Your task to perform on an android device: change alarm snooze length Image 0: 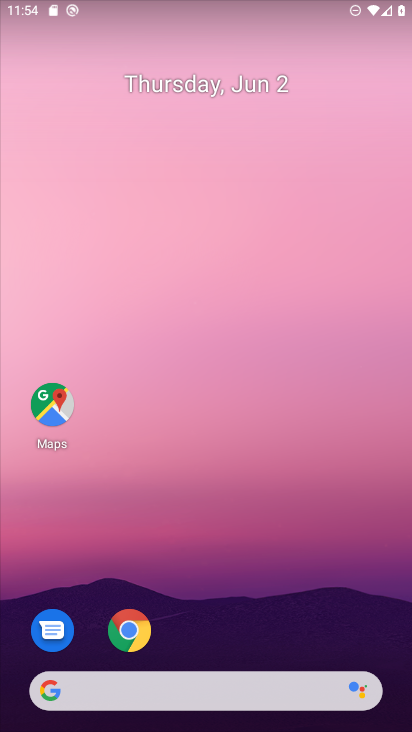
Step 0: drag from (250, 622) to (211, 150)
Your task to perform on an android device: change alarm snooze length Image 1: 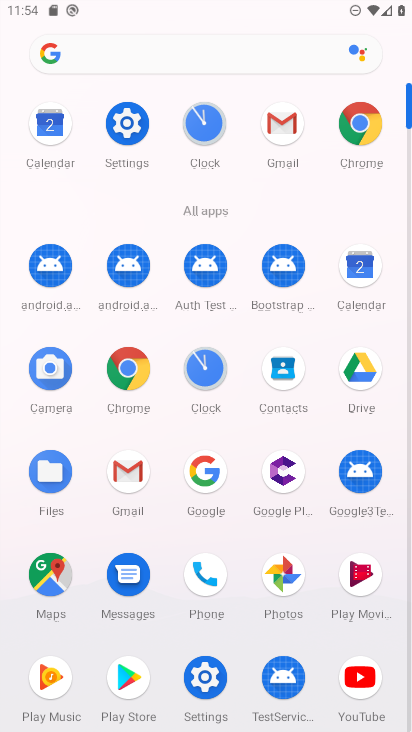
Step 1: click (211, 128)
Your task to perform on an android device: change alarm snooze length Image 2: 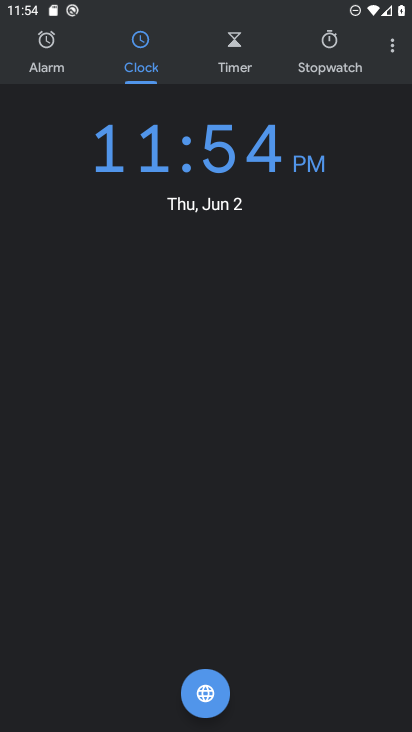
Step 2: click (395, 58)
Your task to perform on an android device: change alarm snooze length Image 3: 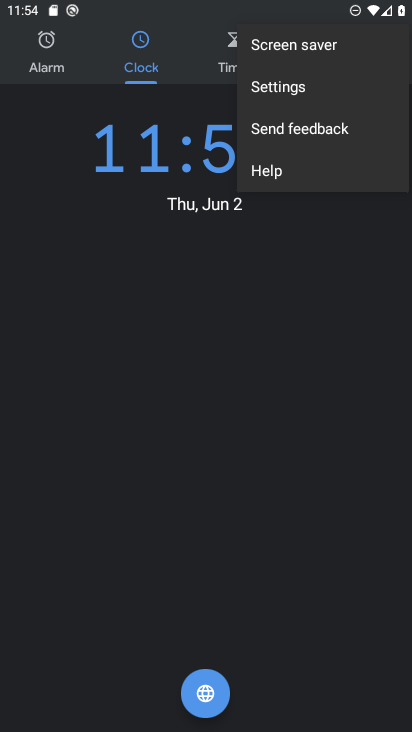
Step 3: click (356, 83)
Your task to perform on an android device: change alarm snooze length Image 4: 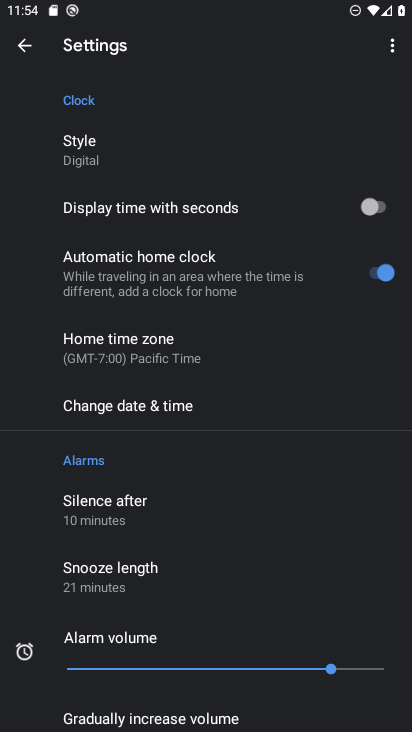
Step 4: click (192, 565)
Your task to perform on an android device: change alarm snooze length Image 5: 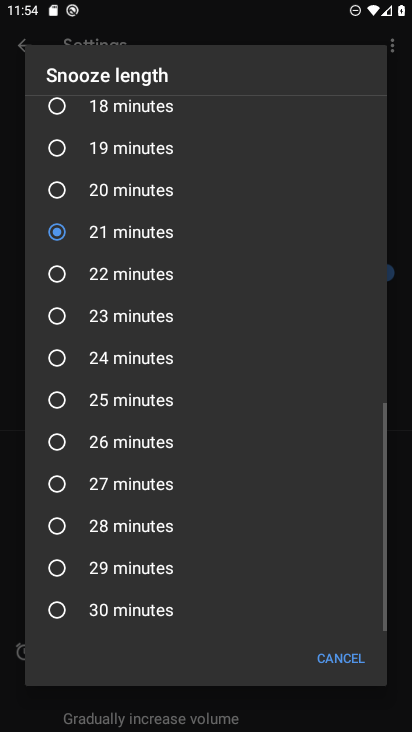
Step 5: click (188, 573)
Your task to perform on an android device: change alarm snooze length Image 6: 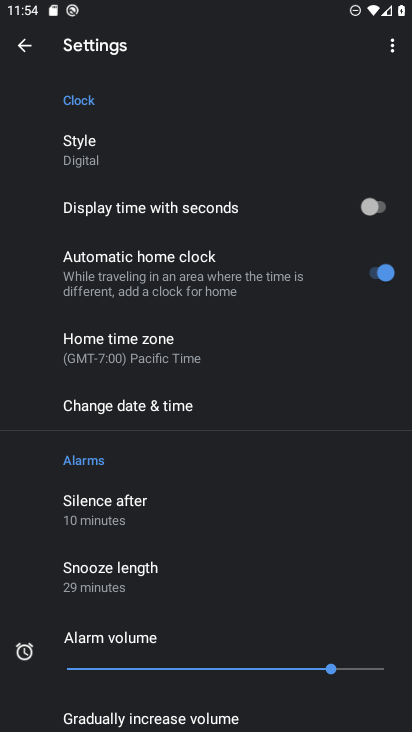
Step 6: task complete